Your task to perform on an android device: Do I have any events today? Image 0: 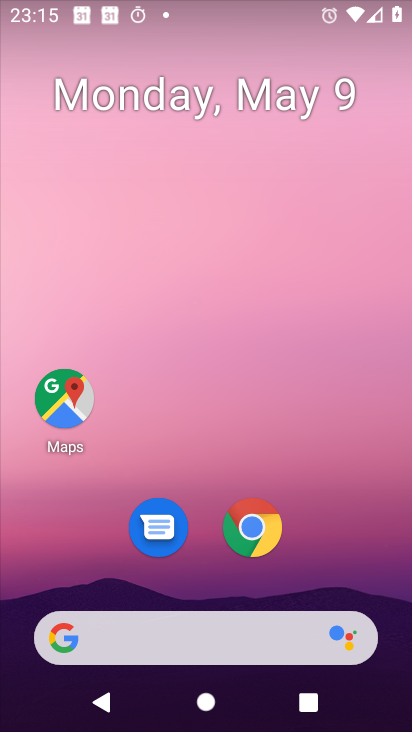
Step 0: drag from (187, 564) to (251, 99)
Your task to perform on an android device: Do I have any events today? Image 1: 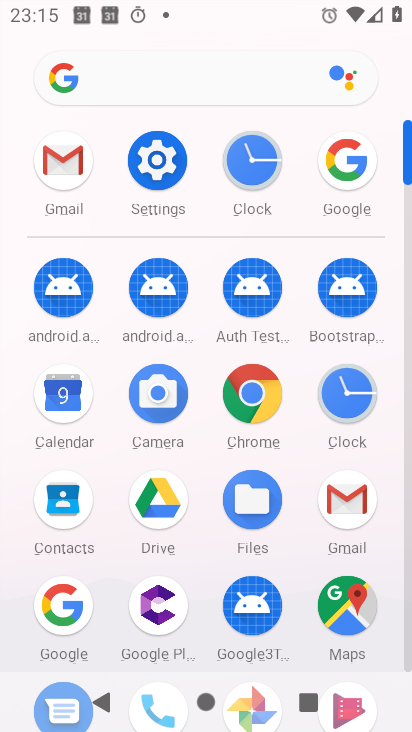
Step 1: click (50, 404)
Your task to perform on an android device: Do I have any events today? Image 2: 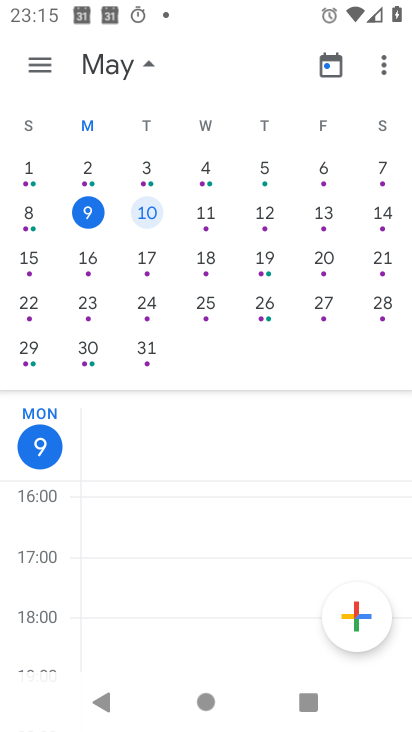
Step 2: click (94, 211)
Your task to perform on an android device: Do I have any events today? Image 3: 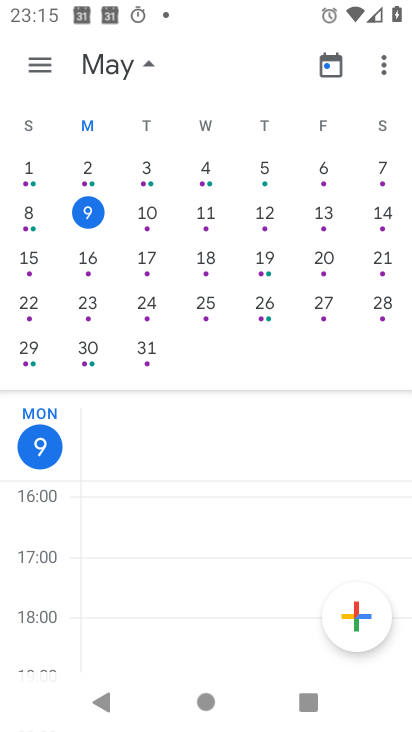
Step 3: task complete